Your task to perform on an android device: turn on wifi Image 0: 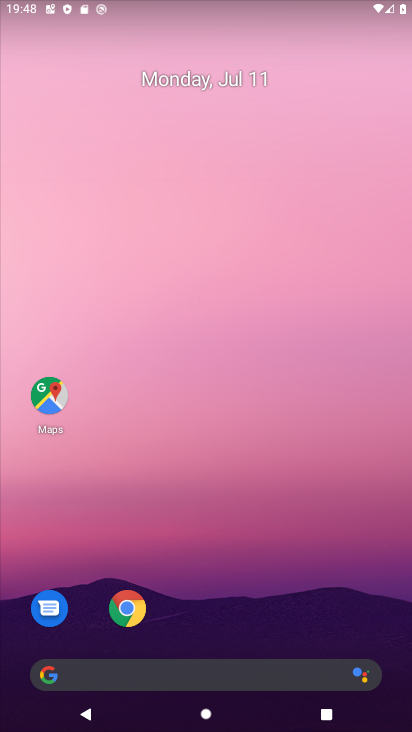
Step 0: drag from (282, 632) to (295, 260)
Your task to perform on an android device: turn on wifi Image 1: 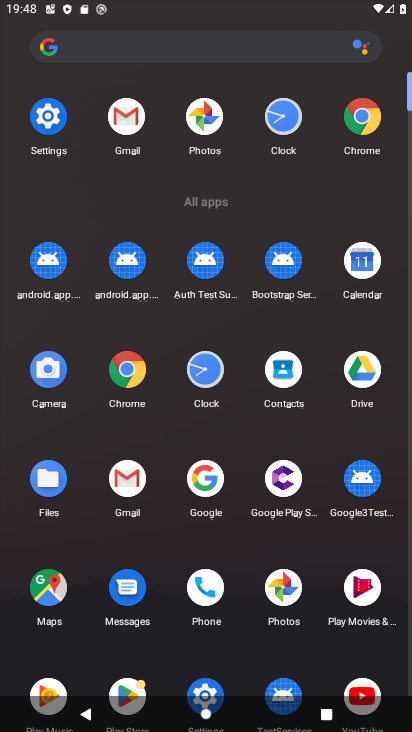
Step 1: click (57, 130)
Your task to perform on an android device: turn on wifi Image 2: 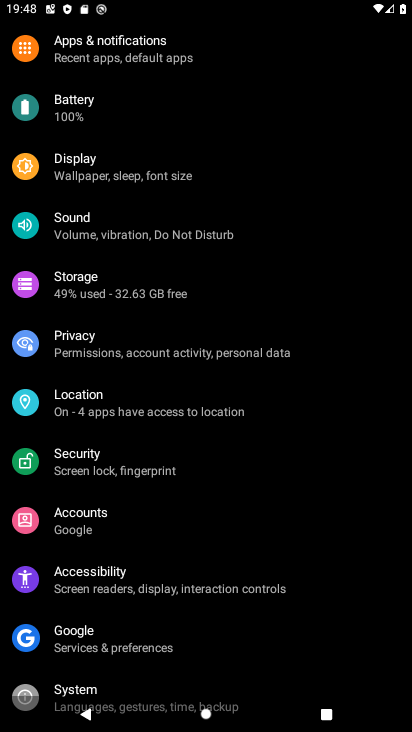
Step 2: drag from (156, 137) to (130, 659)
Your task to perform on an android device: turn on wifi Image 3: 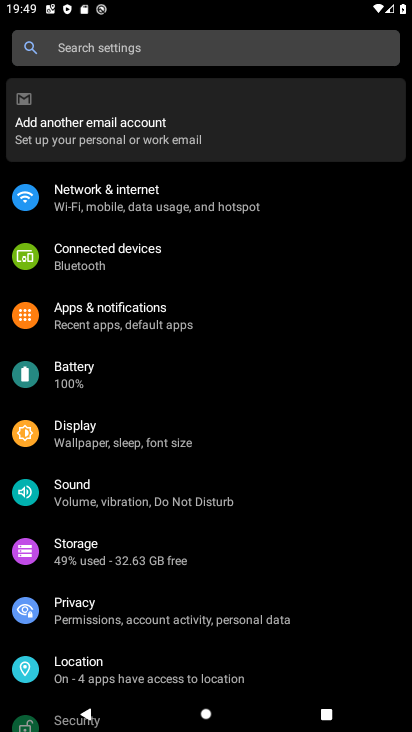
Step 3: click (164, 206)
Your task to perform on an android device: turn on wifi Image 4: 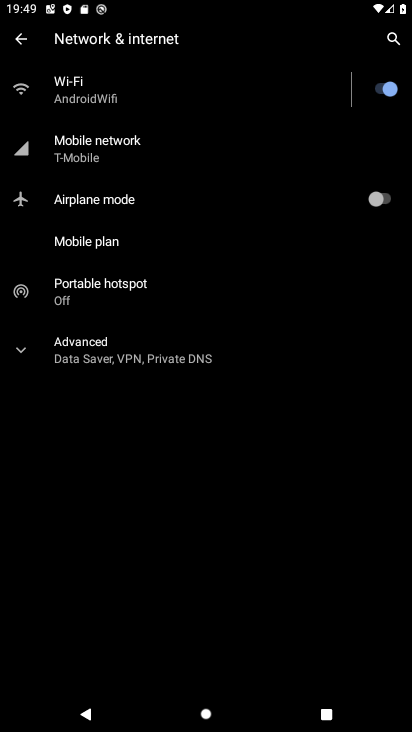
Step 4: task complete